Your task to perform on an android device: open app "Google Find My Device" Image 0: 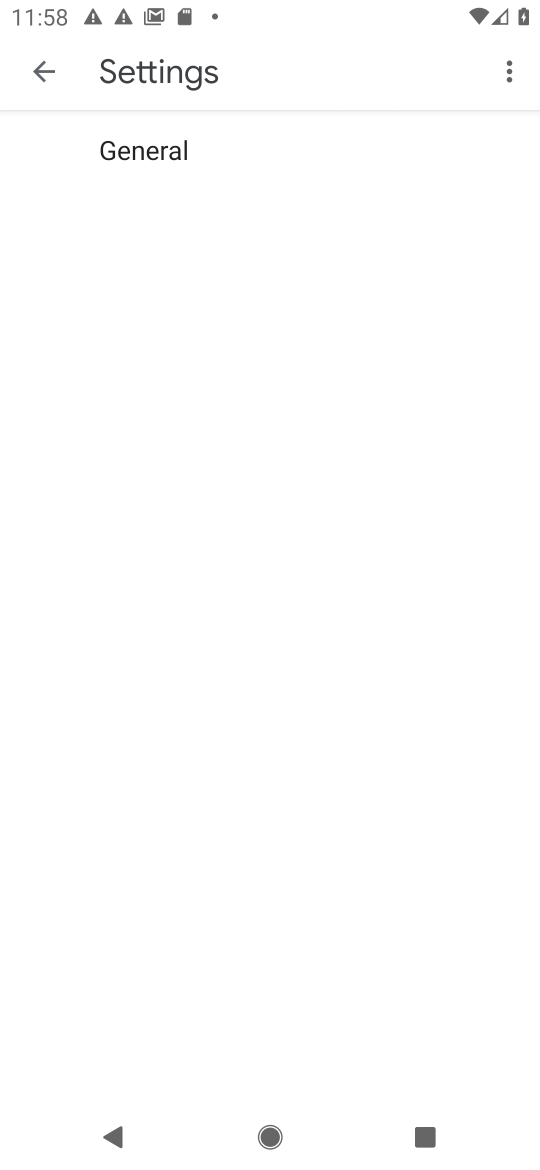
Step 0: press home button
Your task to perform on an android device: open app "Google Find My Device" Image 1: 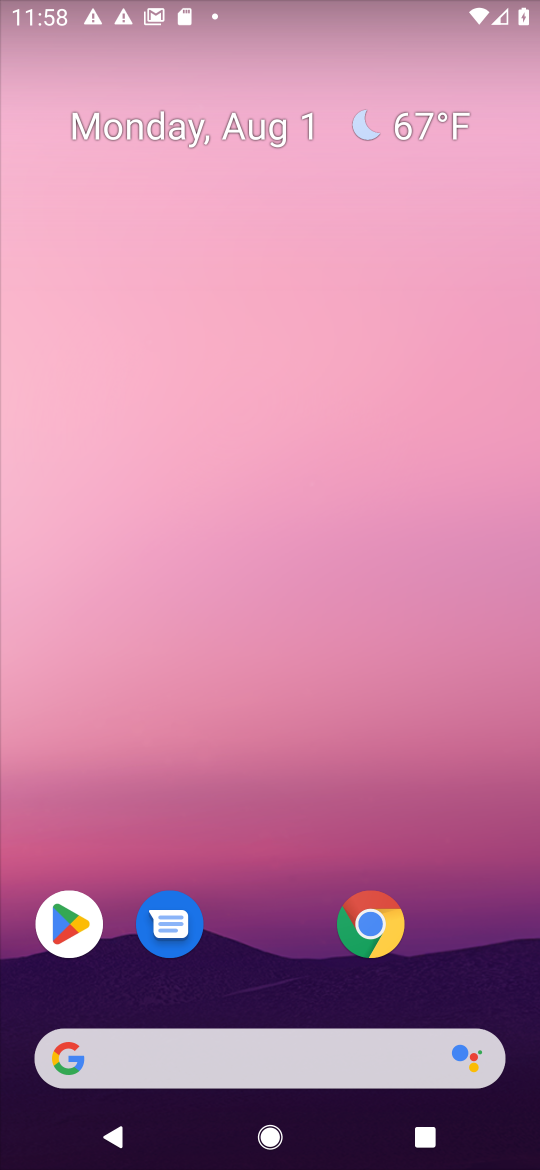
Step 1: click (69, 927)
Your task to perform on an android device: open app "Google Find My Device" Image 2: 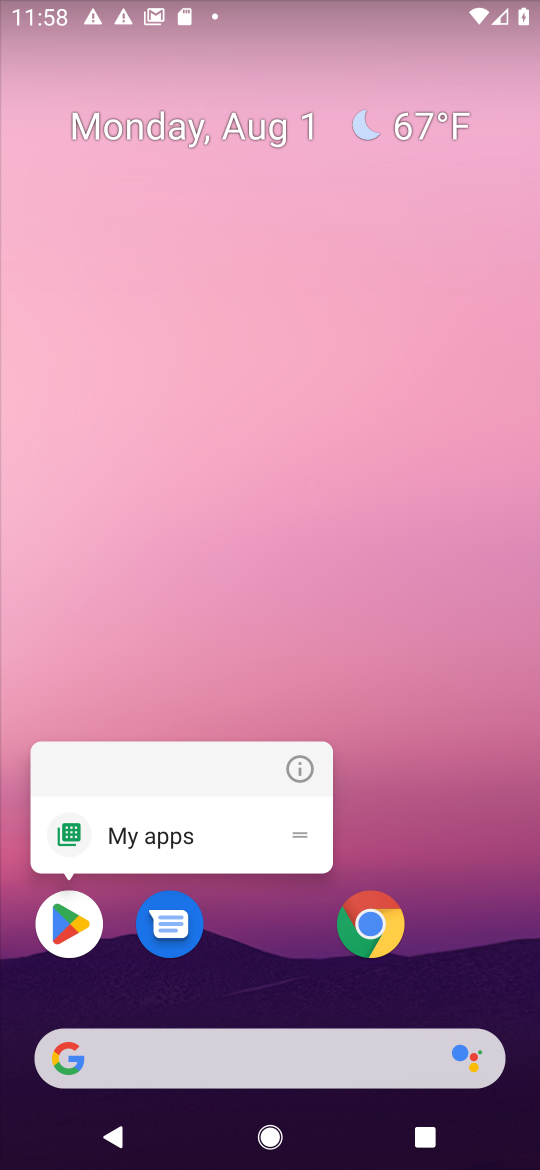
Step 2: click (82, 918)
Your task to perform on an android device: open app "Google Find My Device" Image 3: 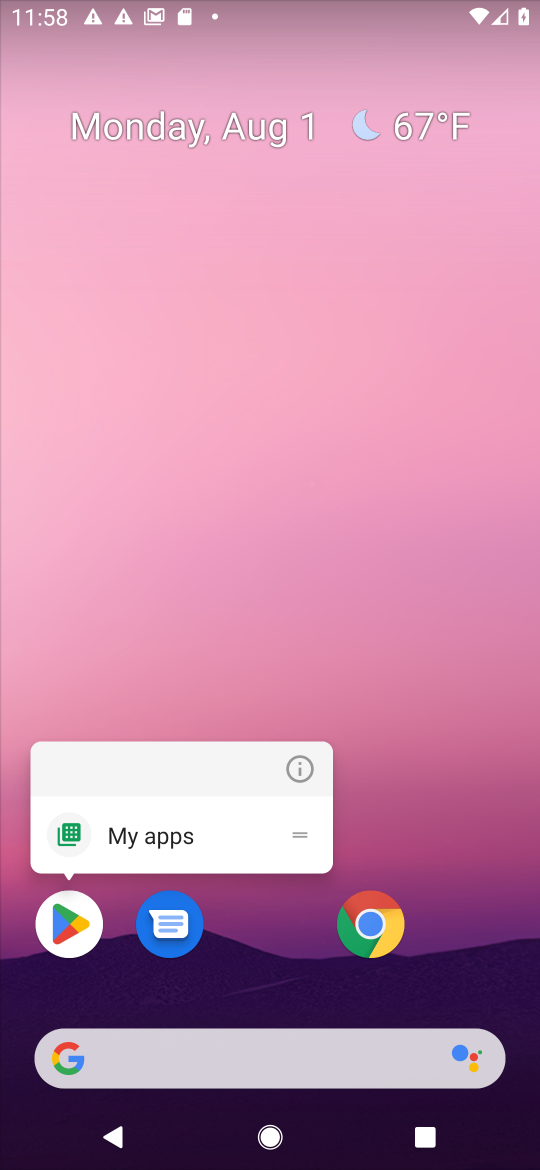
Step 3: click (75, 920)
Your task to perform on an android device: open app "Google Find My Device" Image 4: 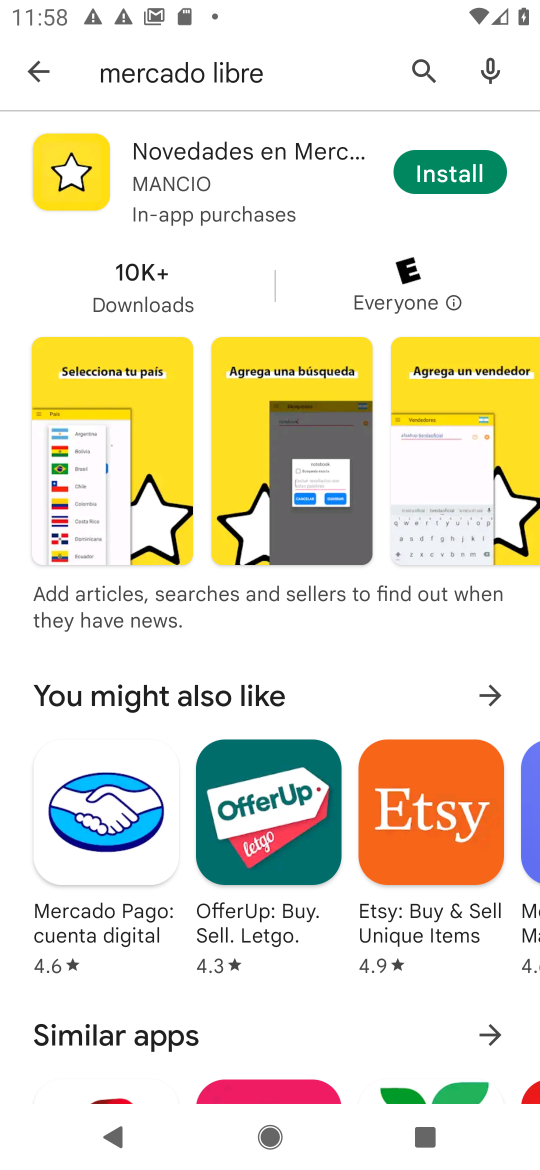
Step 4: click (408, 71)
Your task to perform on an android device: open app "Google Find My Device" Image 5: 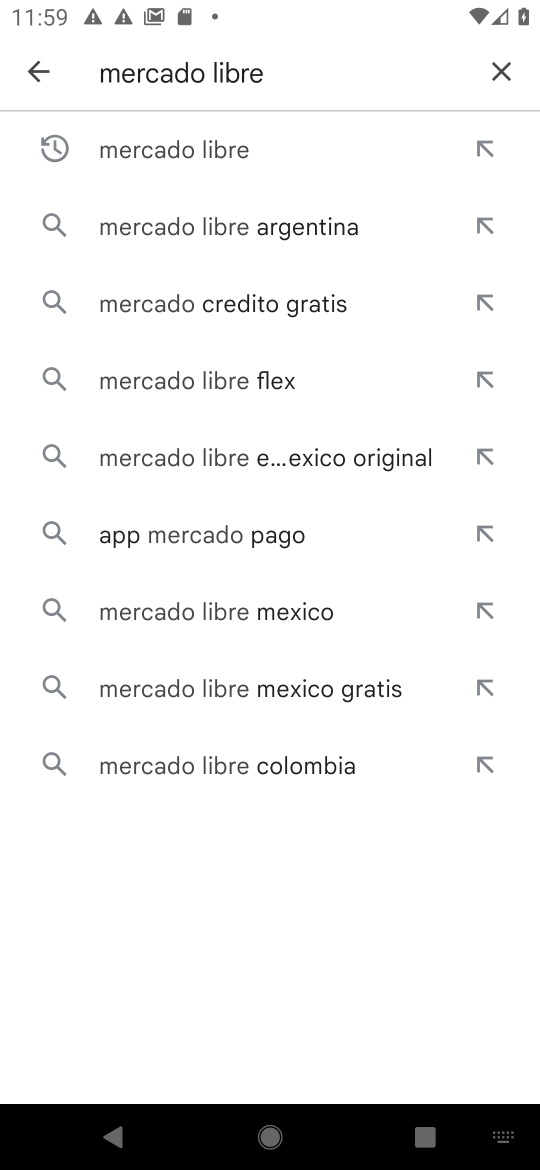
Step 5: click (495, 72)
Your task to perform on an android device: open app "Google Find My Device" Image 6: 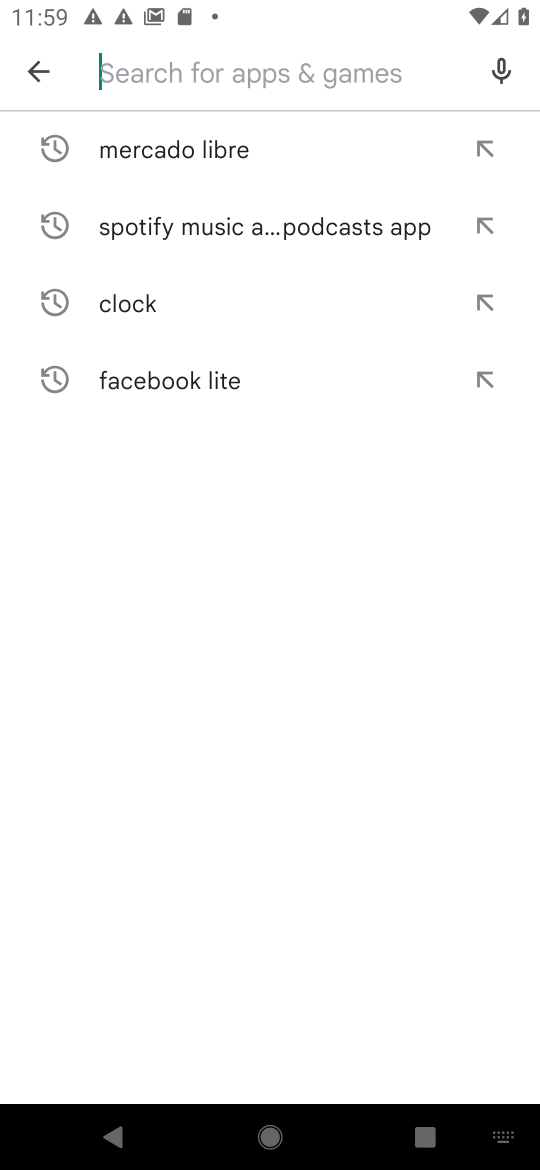
Step 6: type "Google Find My Device"
Your task to perform on an android device: open app "Google Find My Device" Image 7: 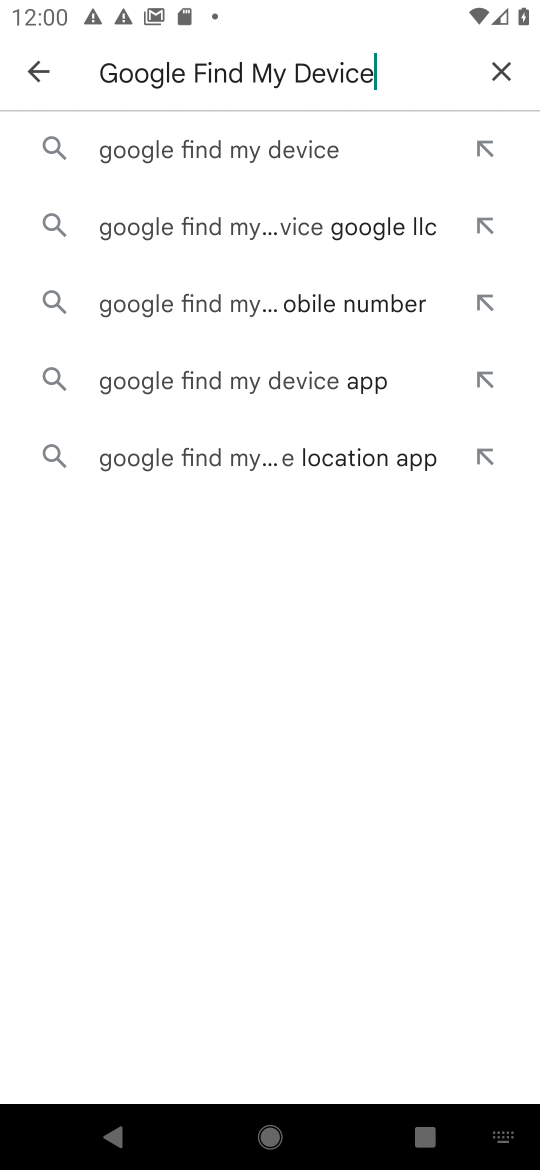
Step 7: click (259, 159)
Your task to perform on an android device: open app "Google Find My Device" Image 8: 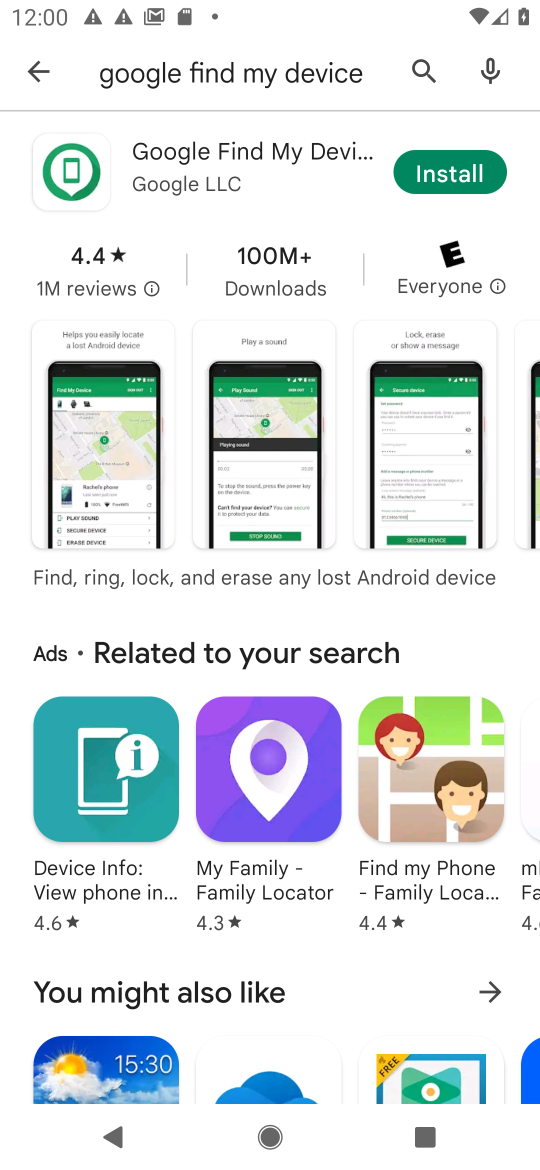
Step 8: task complete